Your task to perform on an android device: change alarm snooze length Image 0: 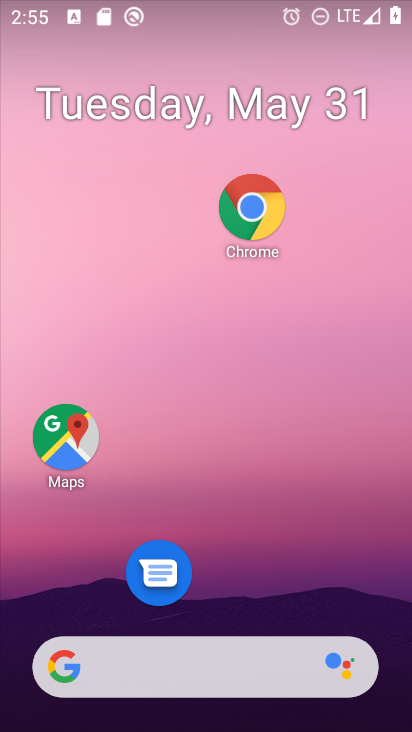
Step 0: drag from (245, 664) to (312, 183)
Your task to perform on an android device: change alarm snooze length Image 1: 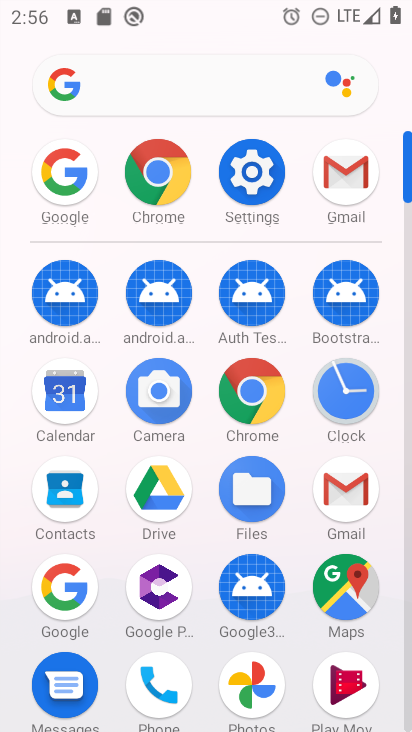
Step 1: click (332, 405)
Your task to perform on an android device: change alarm snooze length Image 2: 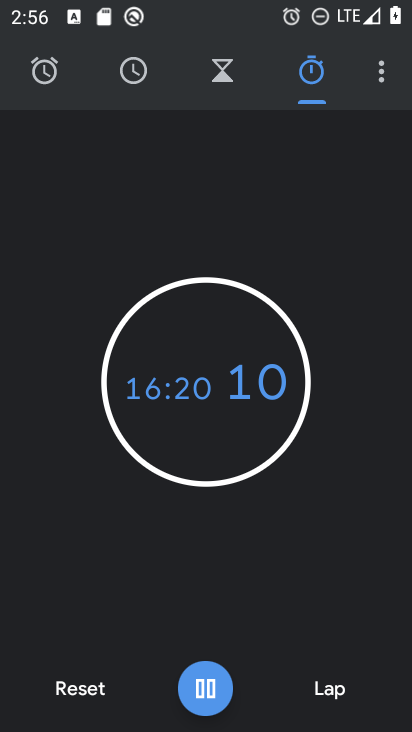
Step 2: click (389, 93)
Your task to perform on an android device: change alarm snooze length Image 3: 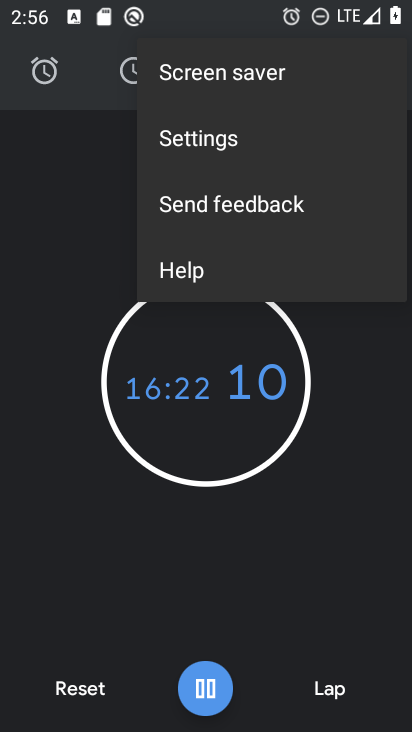
Step 3: click (254, 142)
Your task to perform on an android device: change alarm snooze length Image 4: 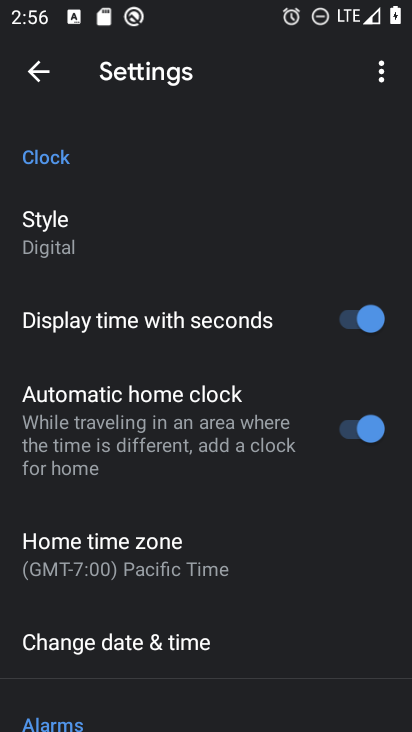
Step 4: drag from (210, 605) to (284, 160)
Your task to perform on an android device: change alarm snooze length Image 5: 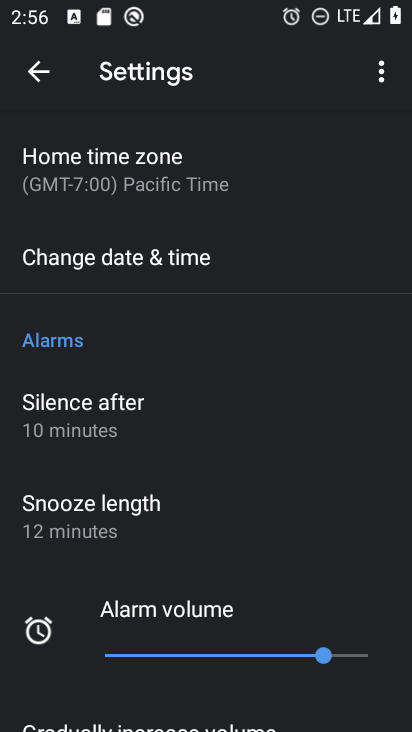
Step 5: drag from (159, 564) to (180, 452)
Your task to perform on an android device: change alarm snooze length Image 6: 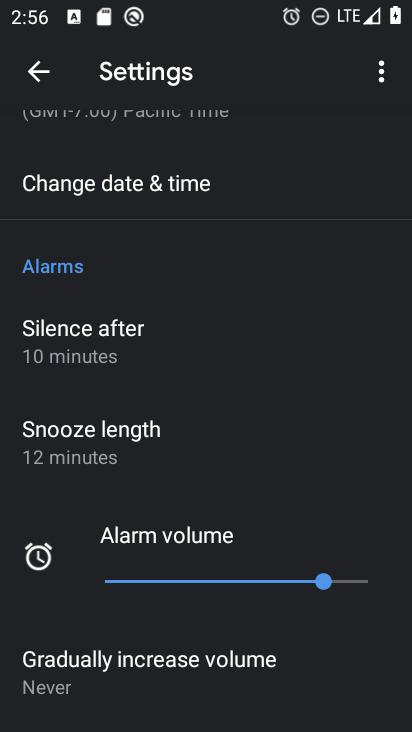
Step 6: click (185, 460)
Your task to perform on an android device: change alarm snooze length Image 7: 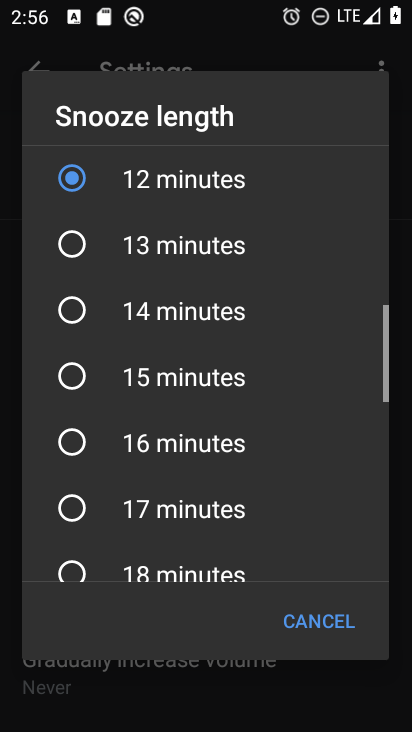
Step 7: click (214, 265)
Your task to perform on an android device: change alarm snooze length Image 8: 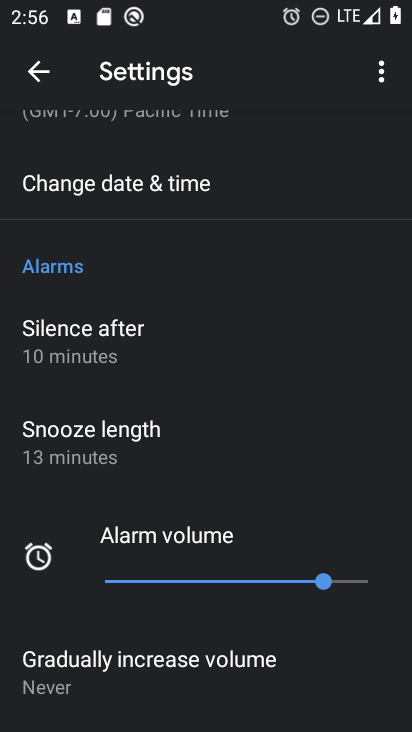
Step 8: task complete